Your task to perform on an android device: change the clock style Image 0: 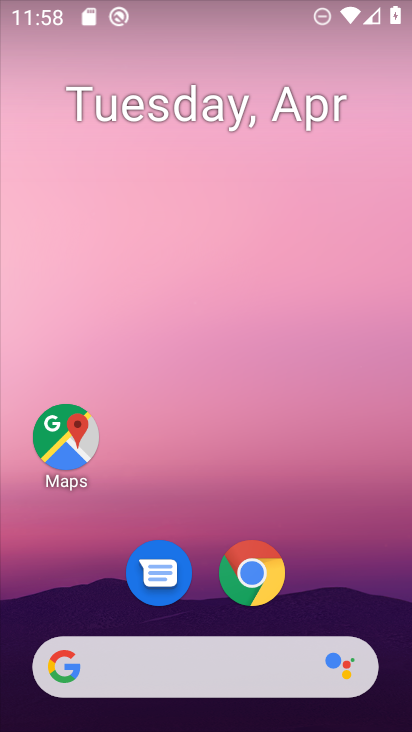
Step 0: drag from (363, 507) to (339, 91)
Your task to perform on an android device: change the clock style Image 1: 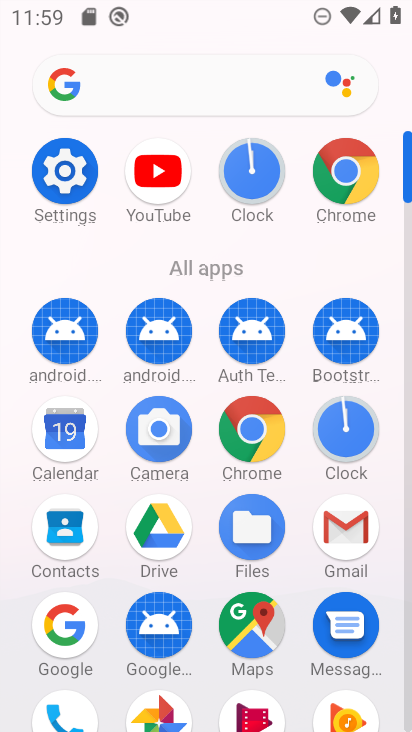
Step 1: click (244, 177)
Your task to perform on an android device: change the clock style Image 2: 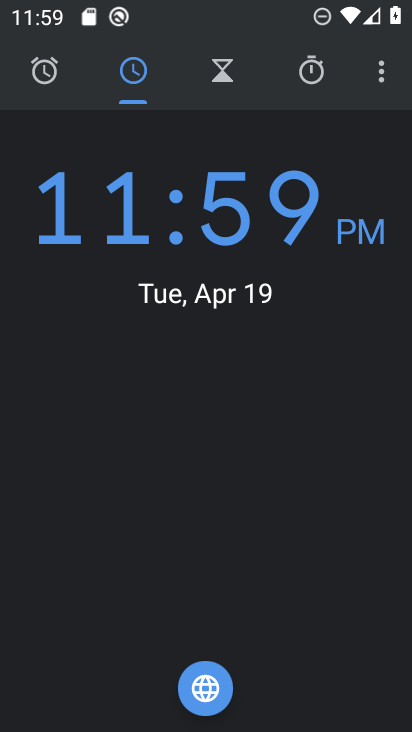
Step 2: click (390, 87)
Your task to perform on an android device: change the clock style Image 3: 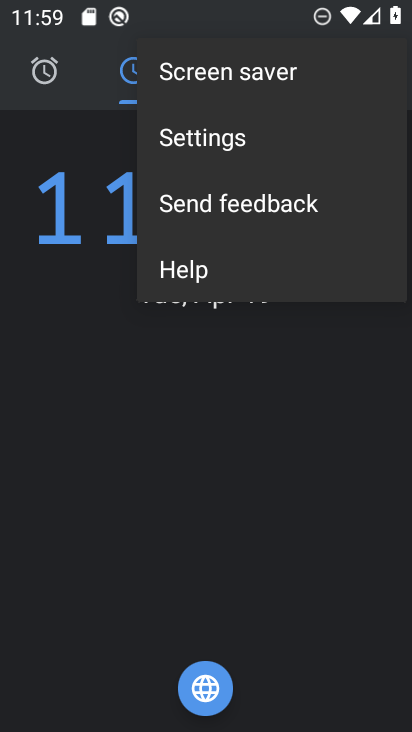
Step 3: click (368, 135)
Your task to perform on an android device: change the clock style Image 4: 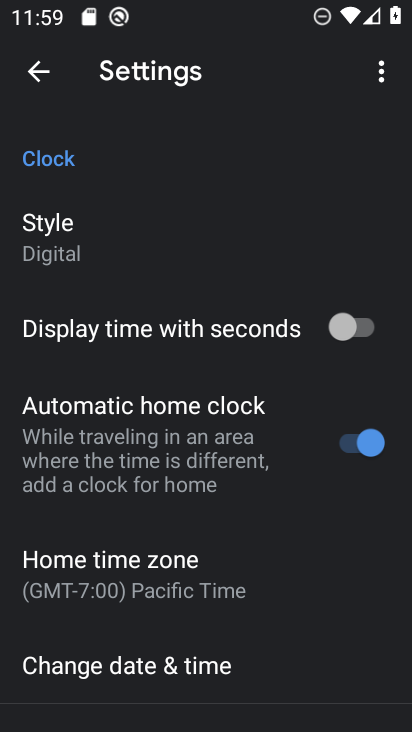
Step 4: click (233, 258)
Your task to perform on an android device: change the clock style Image 5: 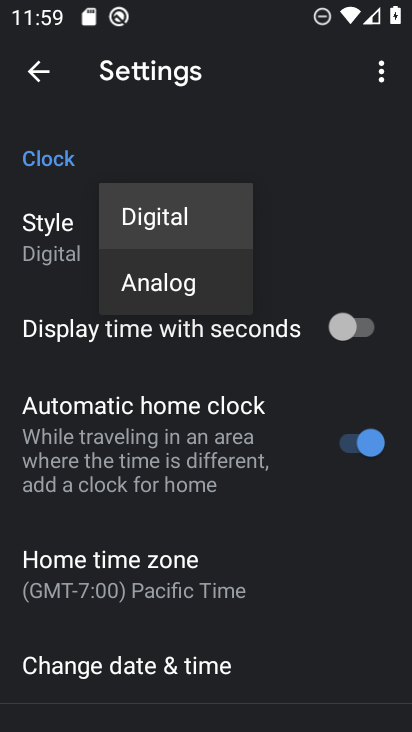
Step 5: click (219, 277)
Your task to perform on an android device: change the clock style Image 6: 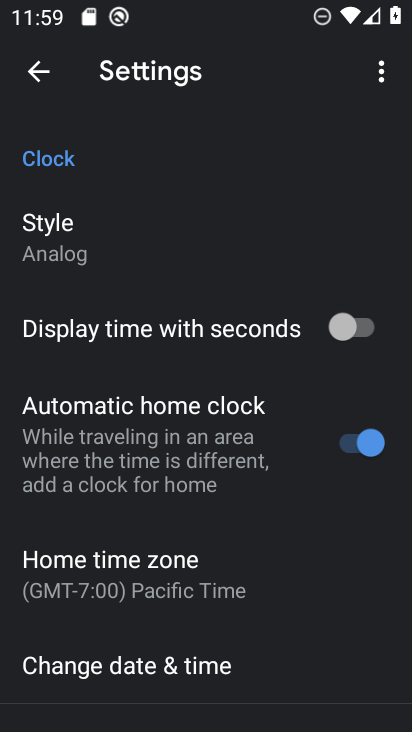
Step 6: task complete